Your task to perform on an android device: set the stopwatch Image 0: 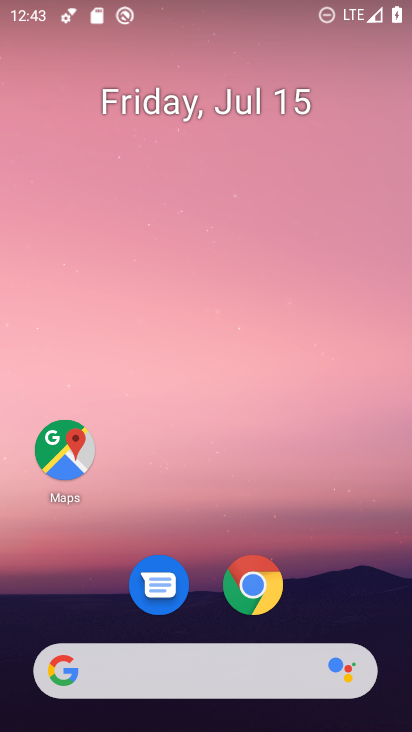
Step 0: drag from (299, 492) to (313, 85)
Your task to perform on an android device: set the stopwatch Image 1: 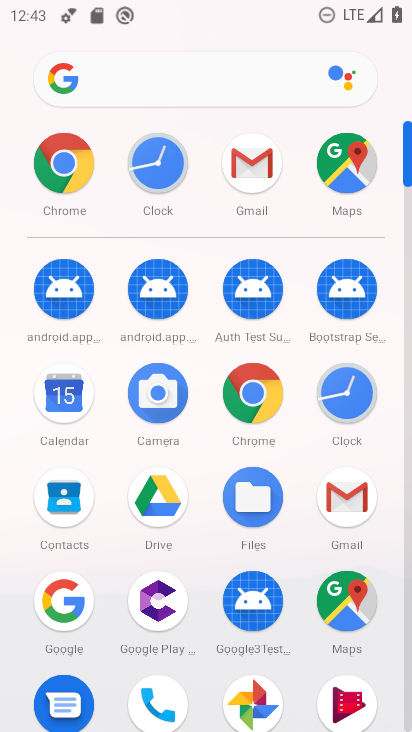
Step 1: click (167, 167)
Your task to perform on an android device: set the stopwatch Image 2: 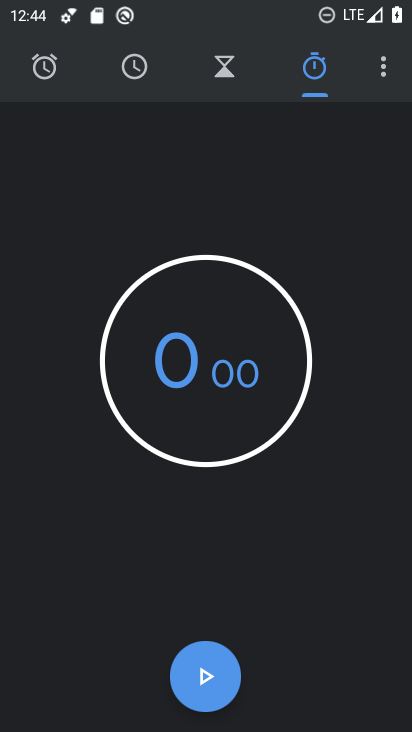
Step 2: task complete